Your task to perform on an android device: What's the news in Peru? Image 0: 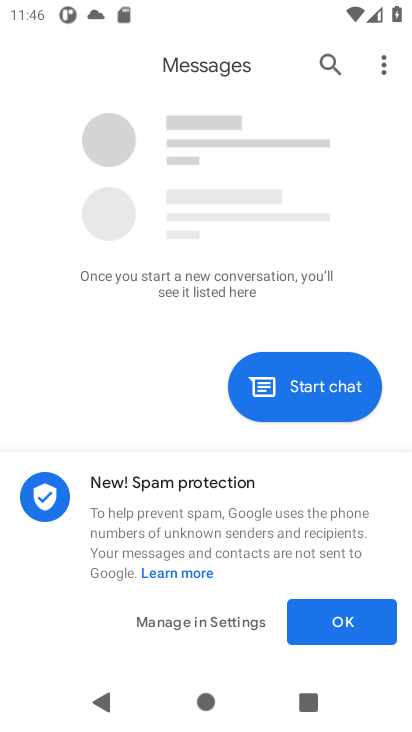
Step 0: press home button
Your task to perform on an android device: What's the news in Peru? Image 1: 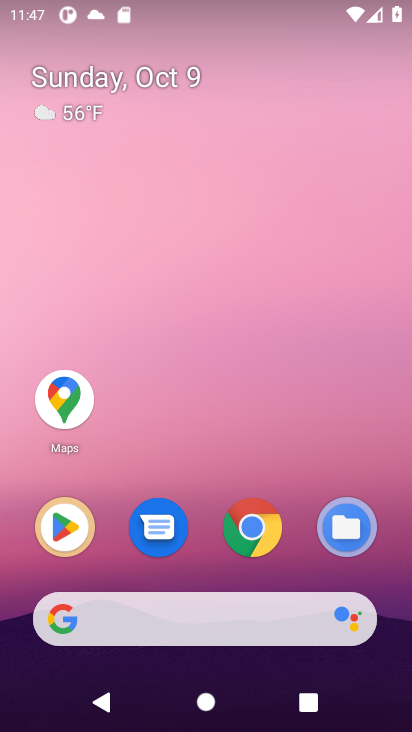
Step 1: click (127, 620)
Your task to perform on an android device: What's the news in Peru? Image 2: 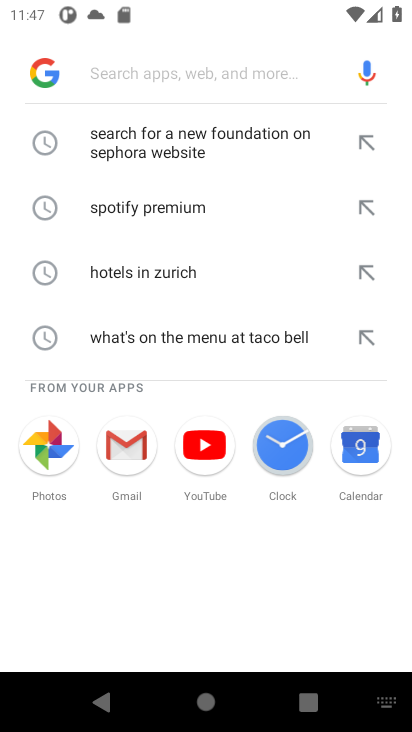
Step 2: type "news in peru"
Your task to perform on an android device: What's the news in Peru? Image 3: 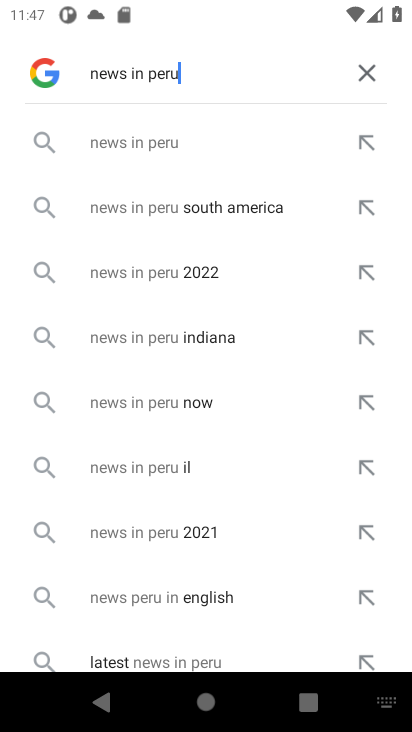
Step 3: click (132, 150)
Your task to perform on an android device: What's the news in Peru? Image 4: 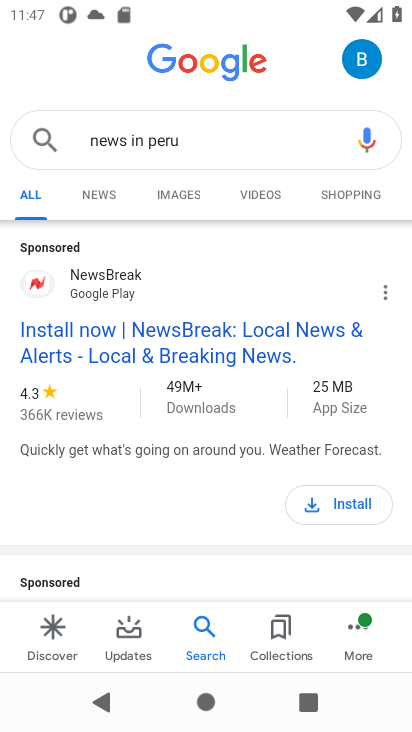
Step 4: drag from (174, 503) to (179, 228)
Your task to perform on an android device: What's the news in Peru? Image 5: 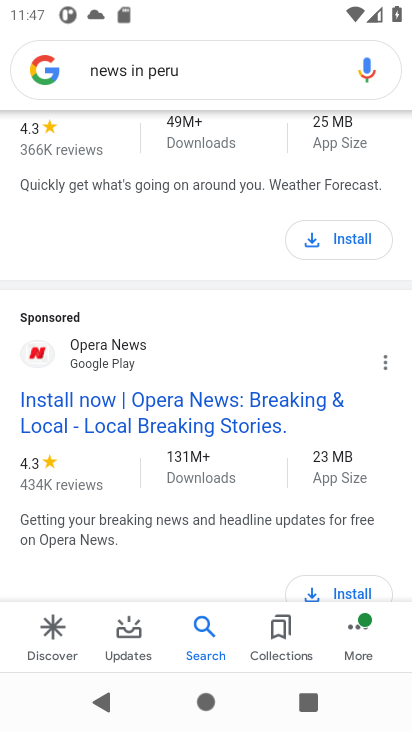
Step 5: drag from (151, 430) to (129, 696)
Your task to perform on an android device: What's the news in Peru? Image 6: 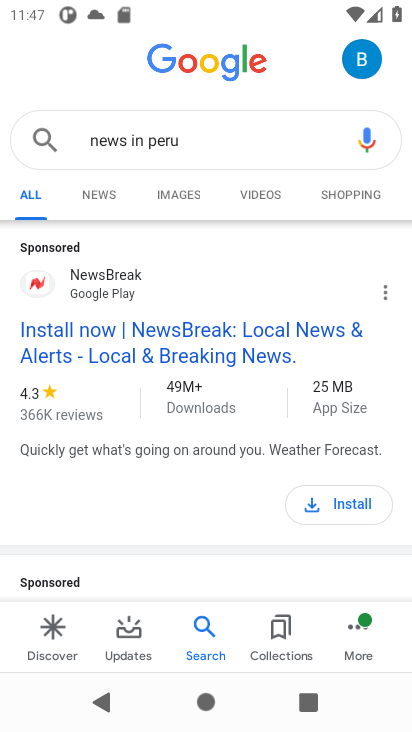
Step 6: click (95, 191)
Your task to perform on an android device: What's the news in Peru? Image 7: 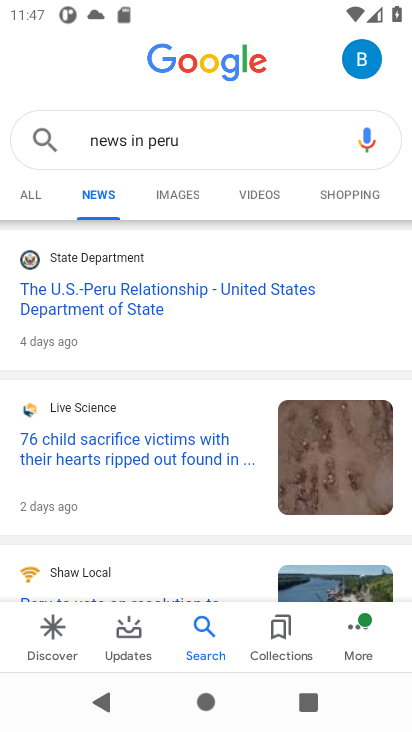
Step 7: drag from (134, 465) to (134, 326)
Your task to perform on an android device: What's the news in Peru? Image 8: 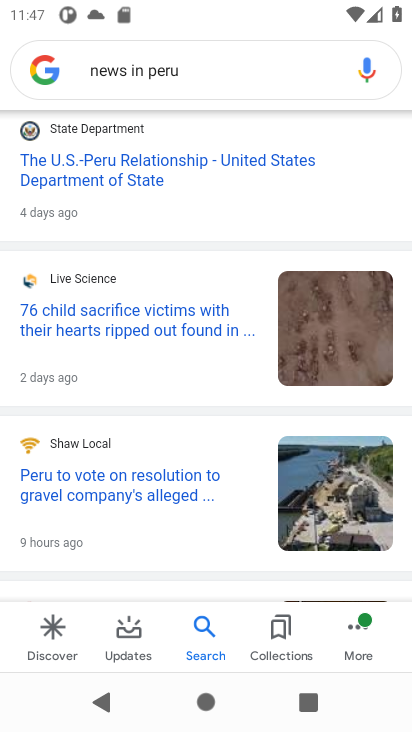
Step 8: click (121, 493)
Your task to perform on an android device: What's the news in Peru? Image 9: 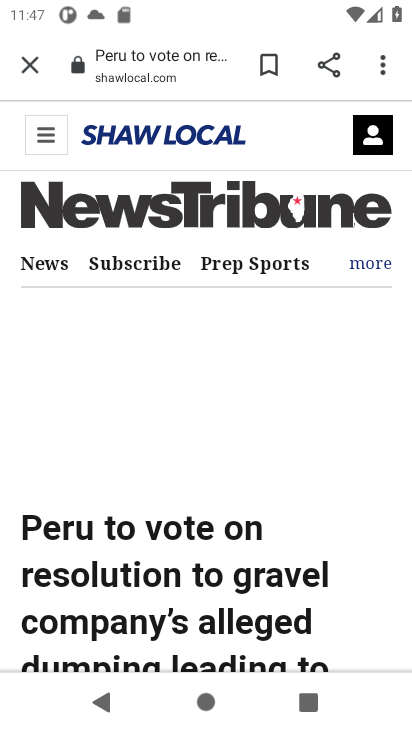
Step 9: task complete